Your task to perform on an android device: Turn on the flashlight Image 0: 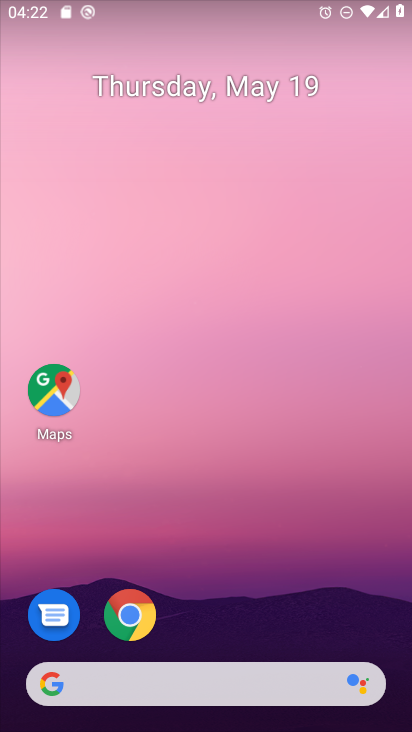
Step 0: drag from (299, 12) to (352, 477)
Your task to perform on an android device: Turn on the flashlight Image 1: 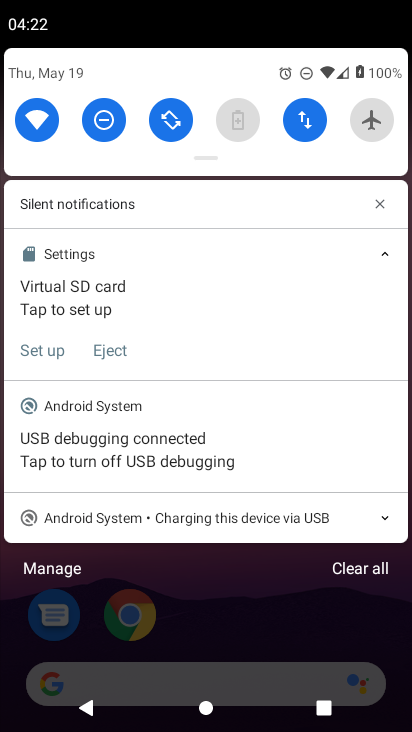
Step 1: drag from (274, 153) to (254, 558)
Your task to perform on an android device: Turn on the flashlight Image 2: 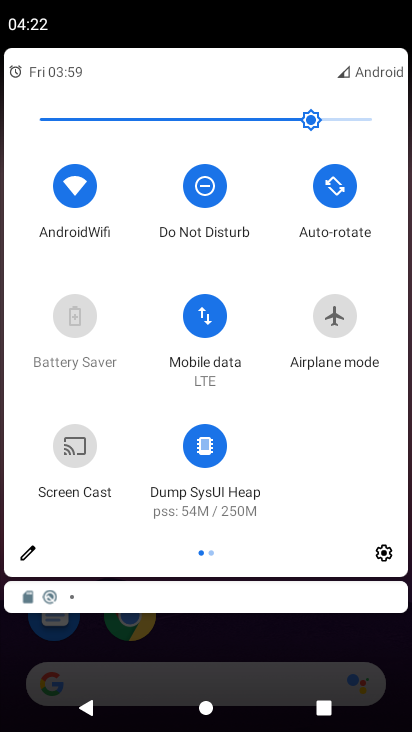
Step 2: click (33, 555)
Your task to perform on an android device: Turn on the flashlight Image 3: 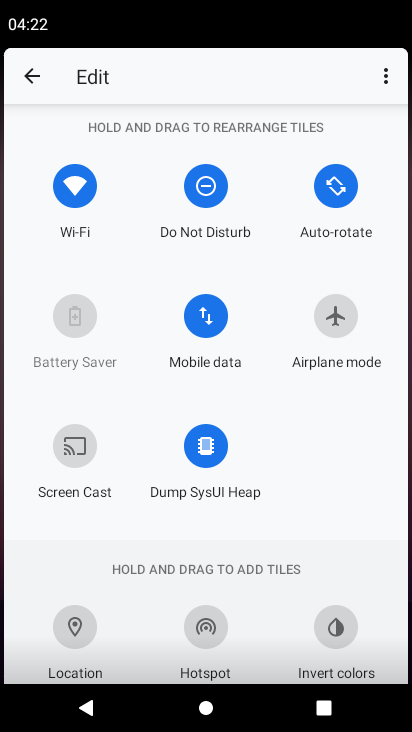
Step 3: task complete